Your task to perform on an android device: turn off notifications settings in the gmail app Image 0: 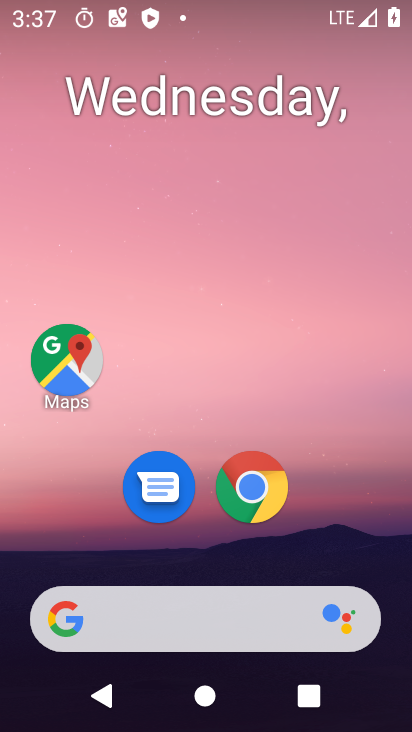
Step 0: drag from (232, 592) to (318, 20)
Your task to perform on an android device: turn off notifications settings in the gmail app Image 1: 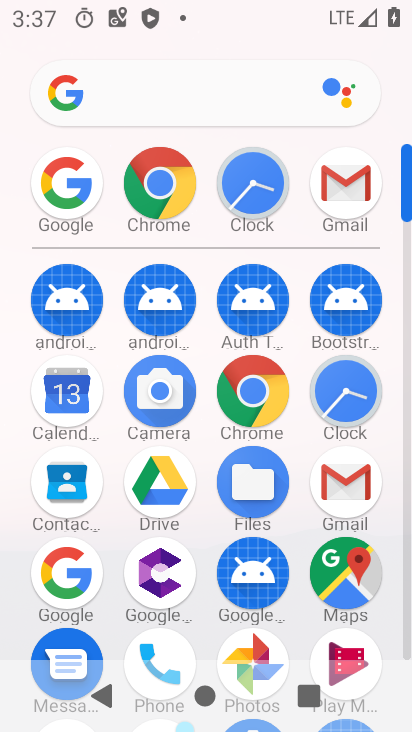
Step 1: click (348, 477)
Your task to perform on an android device: turn off notifications settings in the gmail app Image 2: 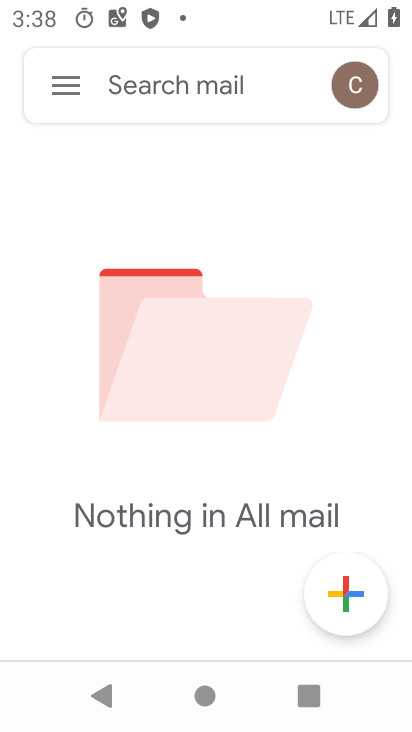
Step 2: click (74, 78)
Your task to perform on an android device: turn off notifications settings in the gmail app Image 3: 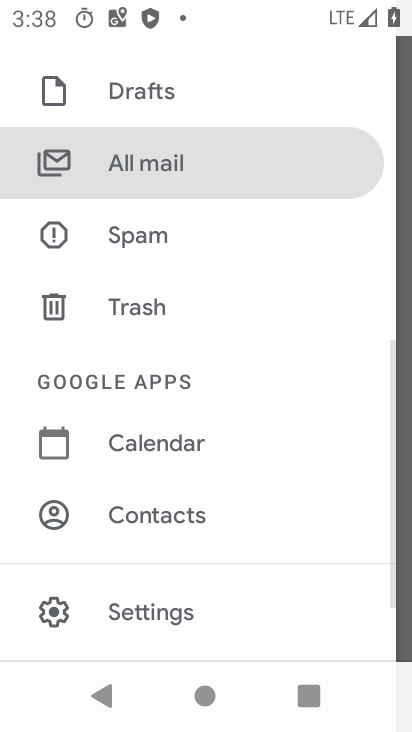
Step 3: click (153, 598)
Your task to perform on an android device: turn off notifications settings in the gmail app Image 4: 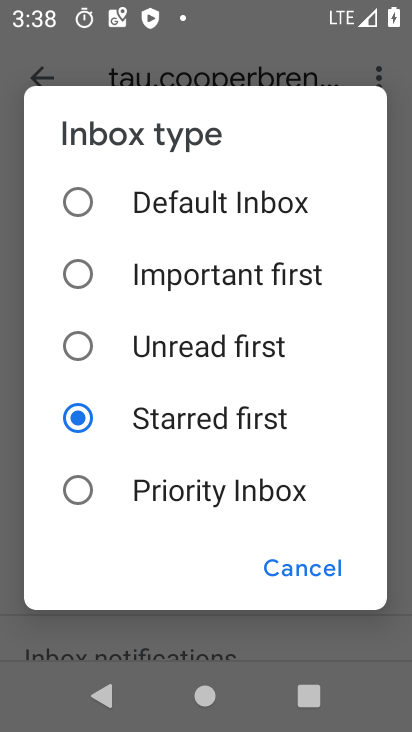
Step 4: click (321, 573)
Your task to perform on an android device: turn off notifications settings in the gmail app Image 5: 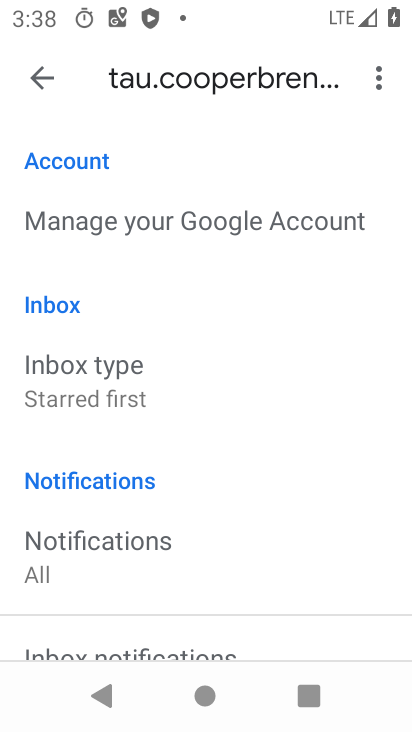
Step 5: click (49, 67)
Your task to perform on an android device: turn off notifications settings in the gmail app Image 6: 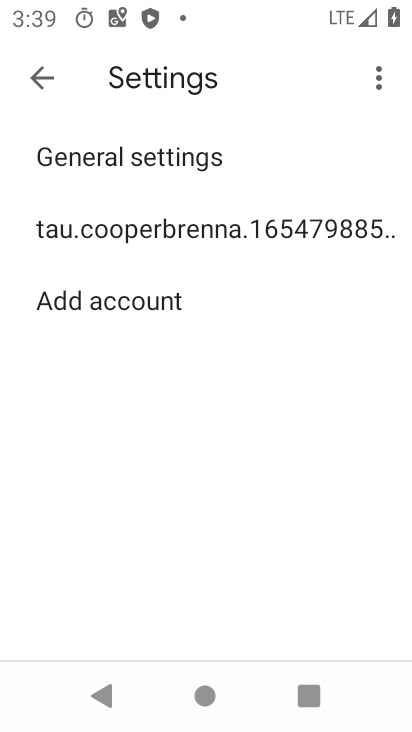
Step 6: click (101, 152)
Your task to perform on an android device: turn off notifications settings in the gmail app Image 7: 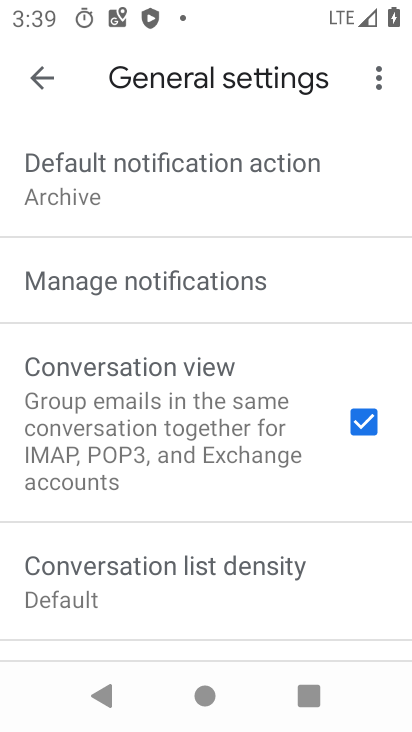
Step 7: click (120, 294)
Your task to perform on an android device: turn off notifications settings in the gmail app Image 8: 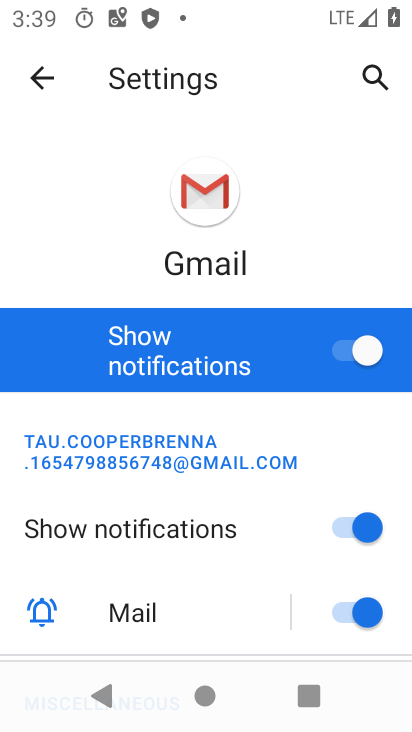
Step 8: click (292, 340)
Your task to perform on an android device: turn off notifications settings in the gmail app Image 9: 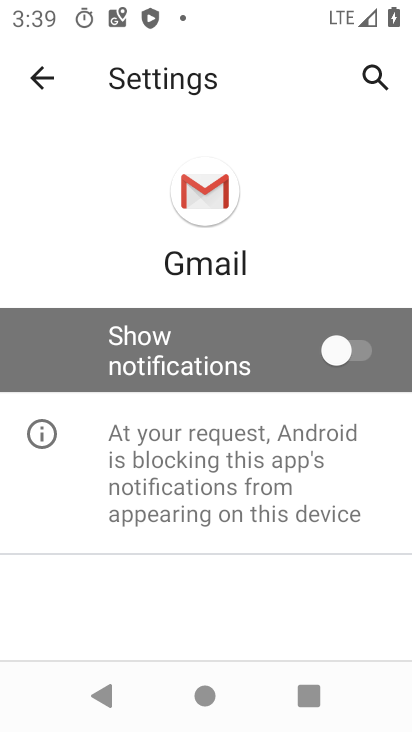
Step 9: task complete